Your task to perform on an android device: Search for "beats solo 3" on bestbuy.com, select the first entry, add it to the cart, then select checkout. Image 0: 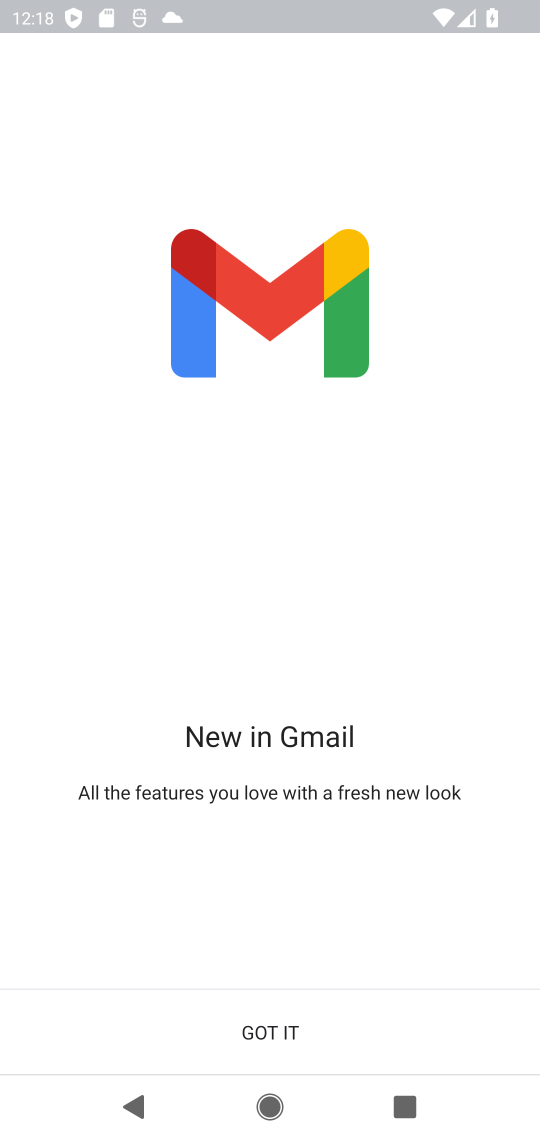
Step 0: press home button
Your task to perform on an android device: Search for "beats solo 3" on bestbuy.com, select the first entry, add it to the cart, then select checkout. Image 1: 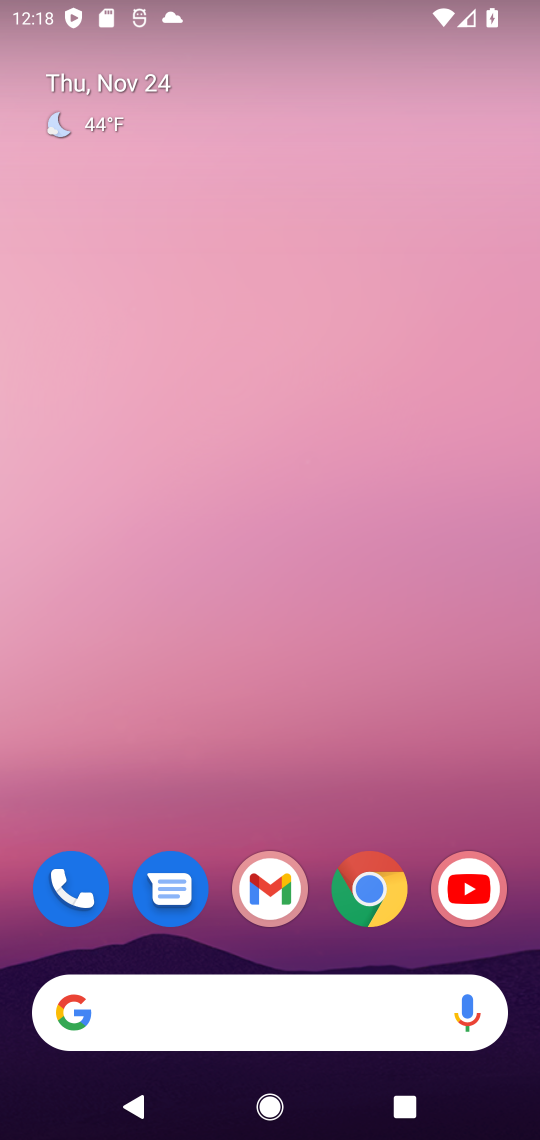
Step 1: click (368, 886)
Your task to perform on an android device: Search for "beats solo 3" on bestbuy.com, select the first entry, add it to the cart, then select checkout. Image 2: 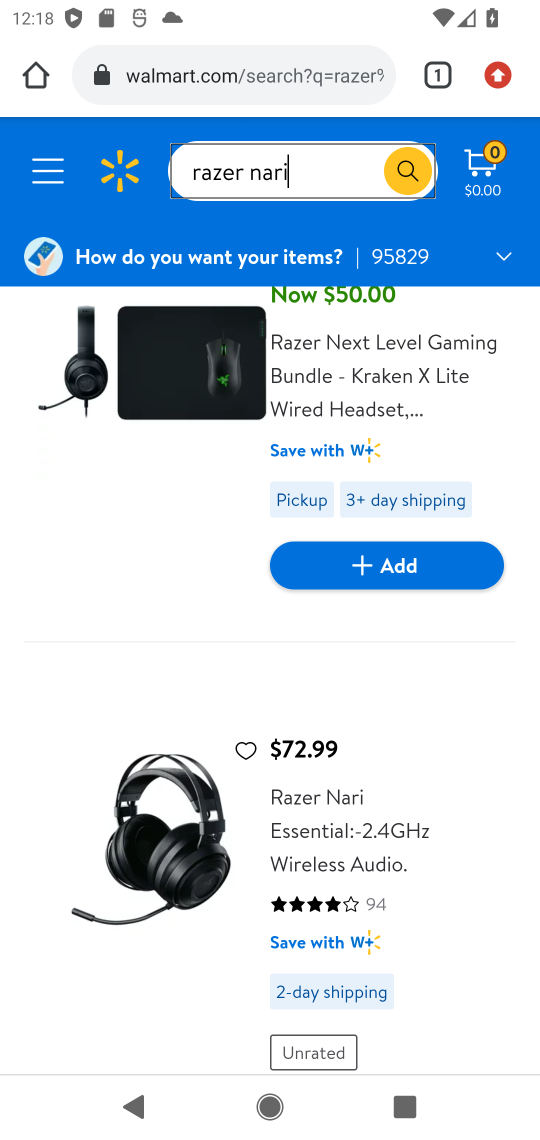
Step 2: click (219, 69)
Your task to perform on an android device: Search for "beats solo 3" on bestbuy.com, select the first entry, add it to the cart, then select checkout. Image 3: 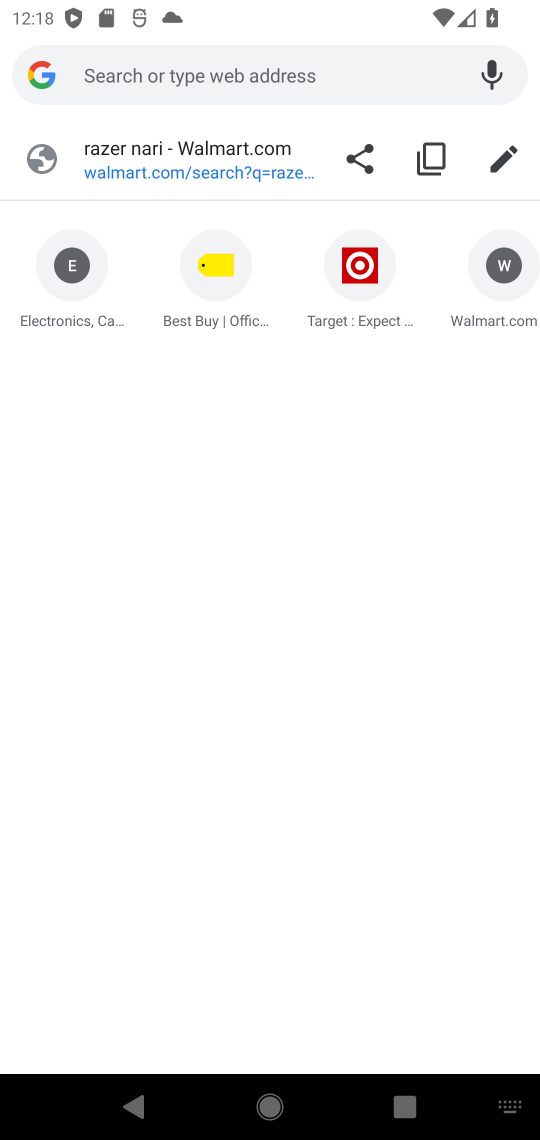
Step 3: click (204, 266)
Your task to perform on an android device: Search for "beats solo 3" on bestbuy.com, select the first entry, add it to the cart, then select checkout. Image 4: 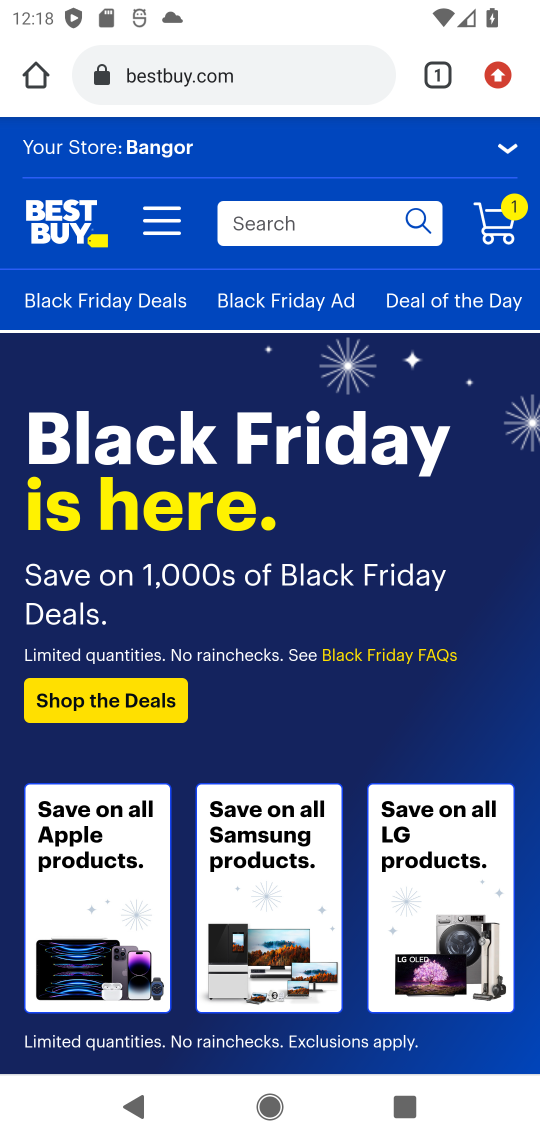
Step 4: click (285, 231)
Your task to perform on an android device: Search for "beats solo 3" on bestbuy.com, select the first entry, add it to the cart, then select checkout. Image 5: 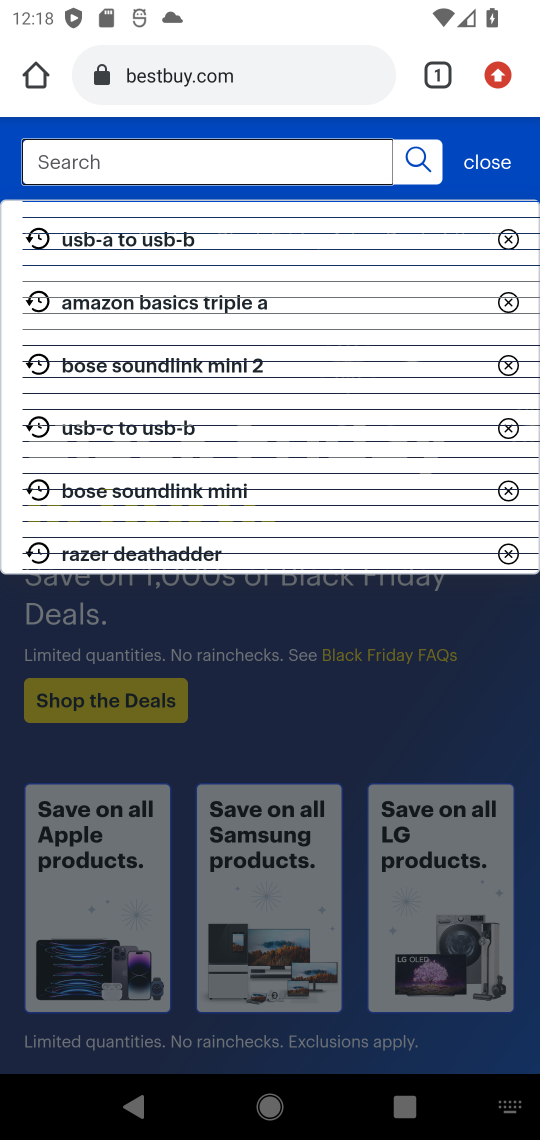
Step 5: type "beats solo 3"
Your task to perform on an android device: Search for "beats solo 3" on bestbuy.com, select the first entry, add it to the cart, then select checkout. Image 6: 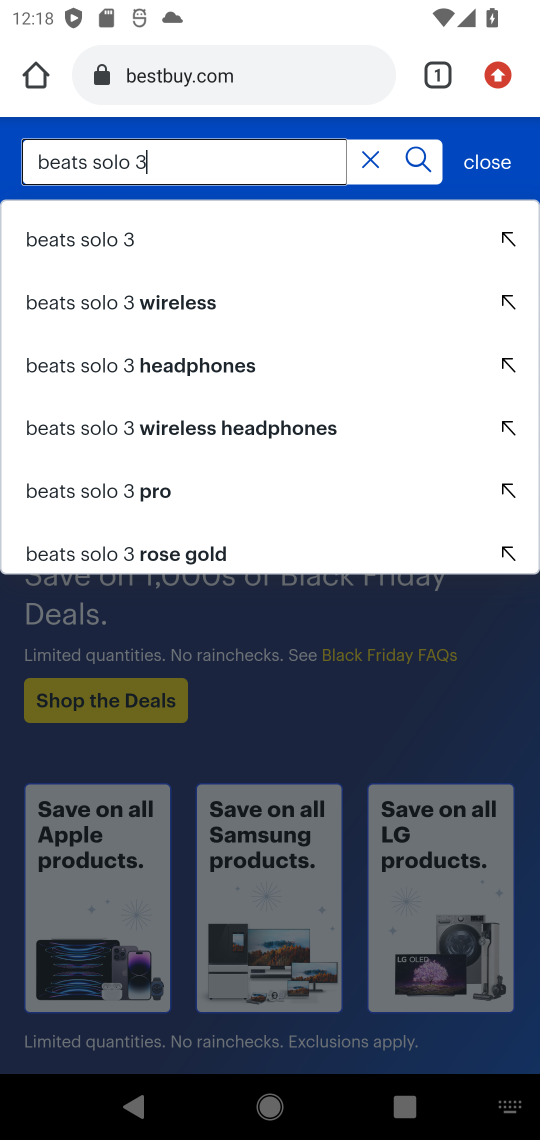
Step 6: click (83, 243)
Your task to perform on an android device: Search for "beats solo 3" on bestbuy.com, select the first entry, add it to the cart, then select checkout. Image 7: 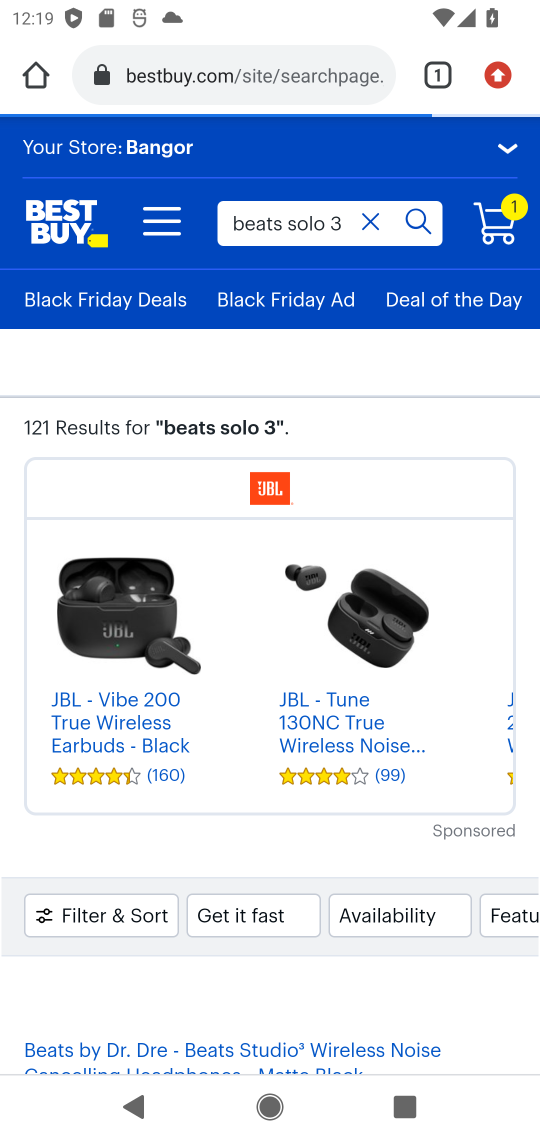
Step 7: task complete